Your task to perform on an android device: toggle priority inbox in the gmail app Image 0: 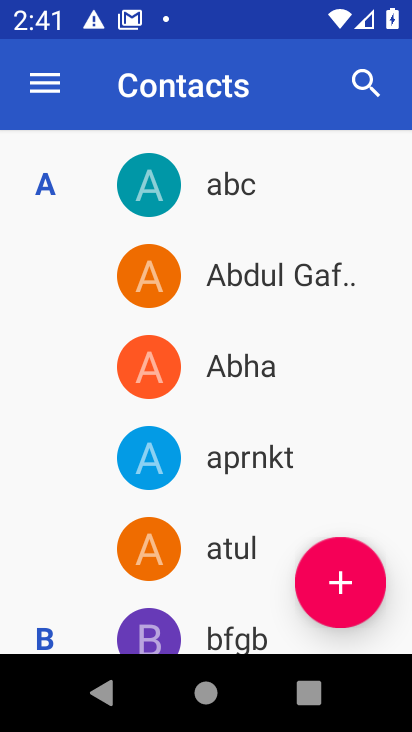
Step 0: task complete